Your task to perform on an android device: Open Youtube and go to the subscriptions tab Image 0: 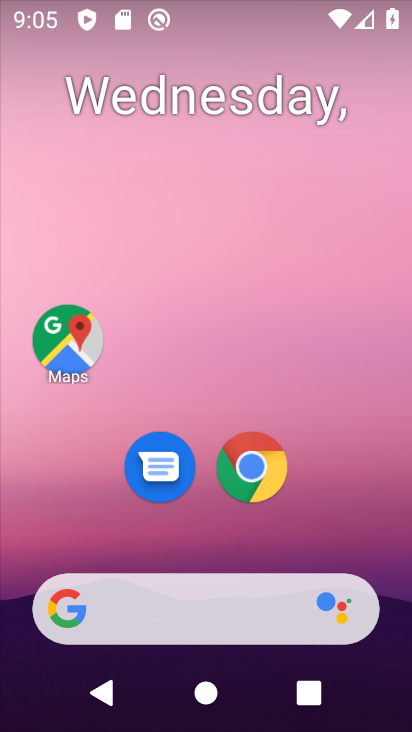
Step 0: drag from (369, 562) to (310, 11)
Your task to perform on an android device: Open Youtube and go to the subscriptions tab Image 1: 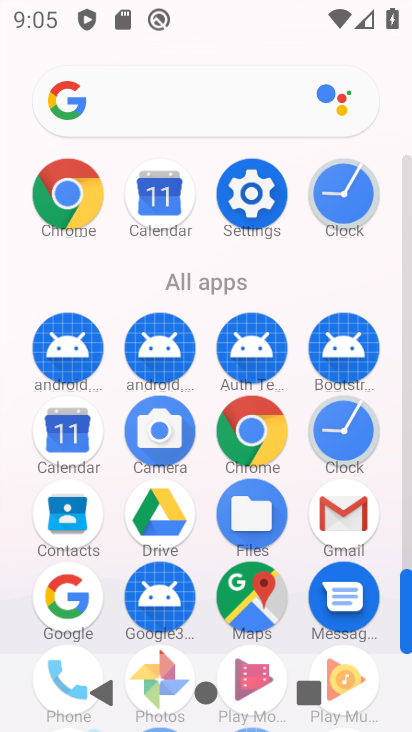
Step 1: drag from (332, 588) to (258, 181)
Your task to perform on an android device: Open Youtube and go to the subscriptions tab Image 2: 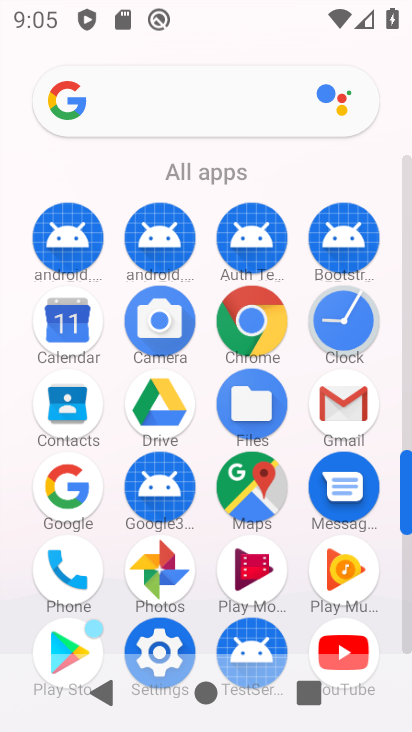
Step 2: drag from (325, 539) to (271, 225)
Your task to perform on an android device: Open Youtube and go to the subscriptions tab Image 3: 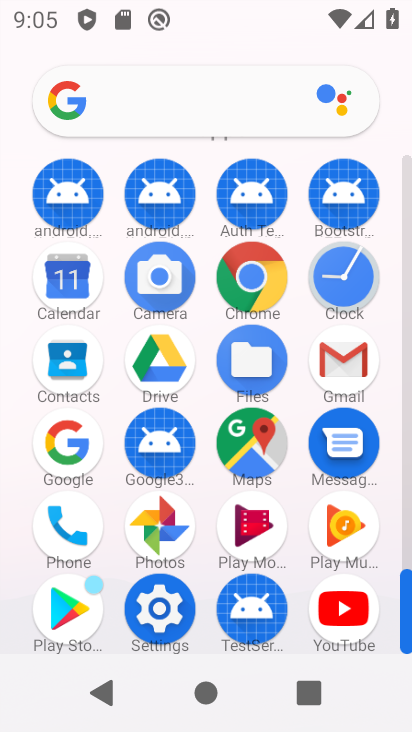
Step 3: drag from (278, 383) to (242, 204)
Your task to perform on an android device: Open Youtube and go to the subscriptions tab Image 4: 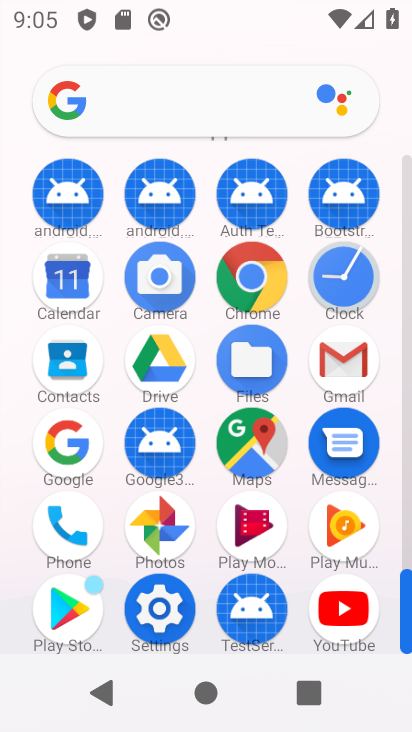
Step 4: click (342, 599)
Your task to perform on an android device: Open Youtube and go to the subscriptions tab Image 5: 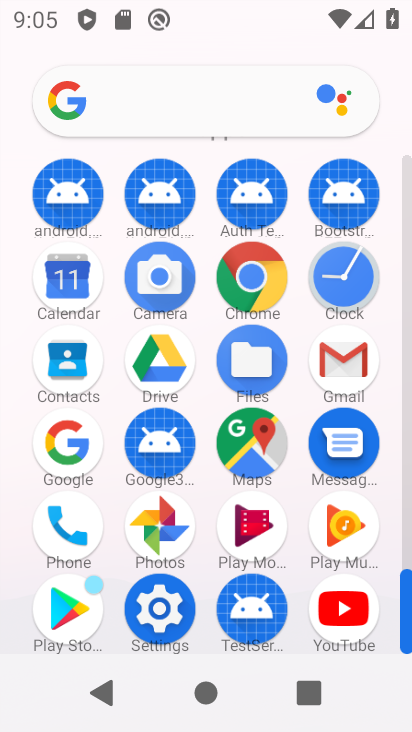
Step 5: click (342, 599)
Your task to perform on an android device: Open Youtube and go to the subscriptions tab Image 6: 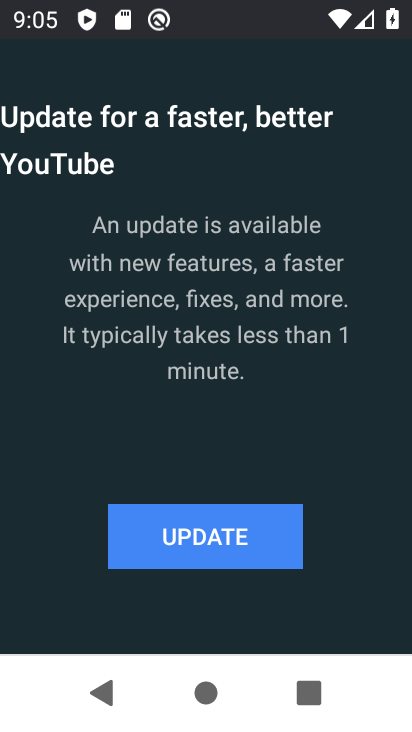
Step 6: click (238, 544)
Your task to perform on an android device: Open Youtube and go to the subscriptions tab Image 7: 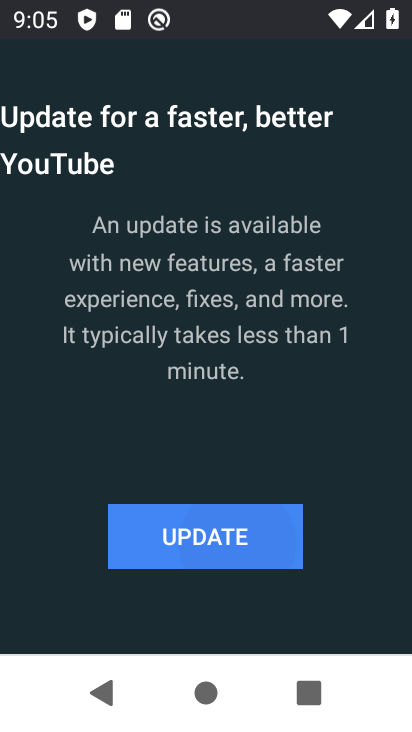
Step 7: drag from (237, 543) to (209, 513)
Your task to perform on an android device: Open Youtube and go to the subscriptions tab Image 8: 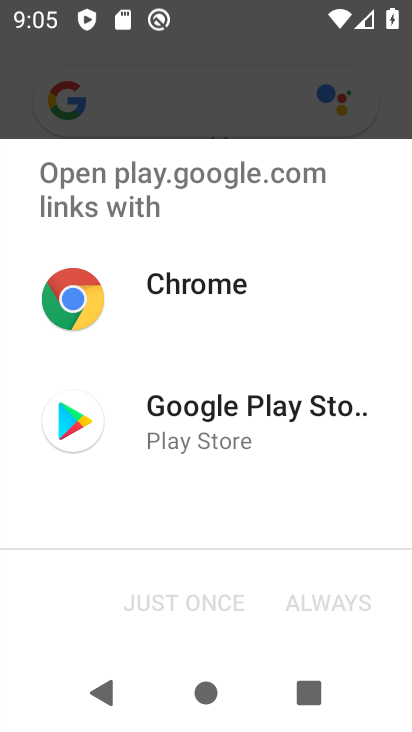
Step 8: click (206, 509)
Your task to perform on an android device: Open Youtube and go to the subscriptions tab Image 9: 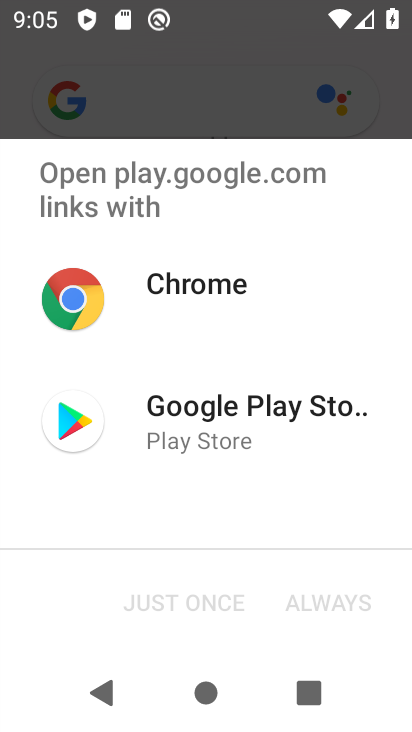
Step 9: click (207, 508)
Your task to perform on an android device: Open Youtube and go to the subscriptions tab Image 10: 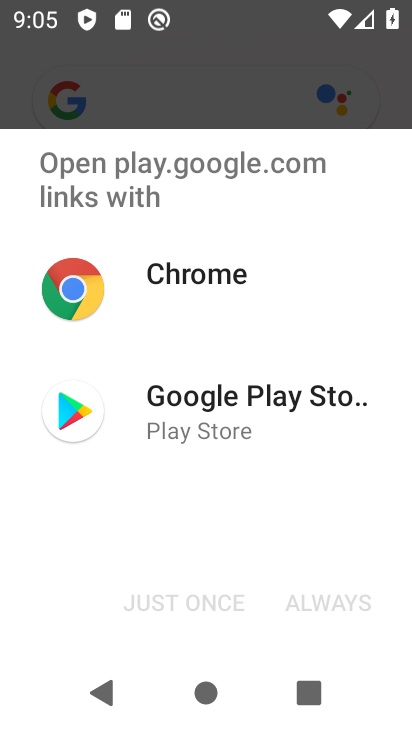
Step 10: click (221, 596)
Your task to perform on an android device: Open Youtube and go to the subscriptions tab Image 11: 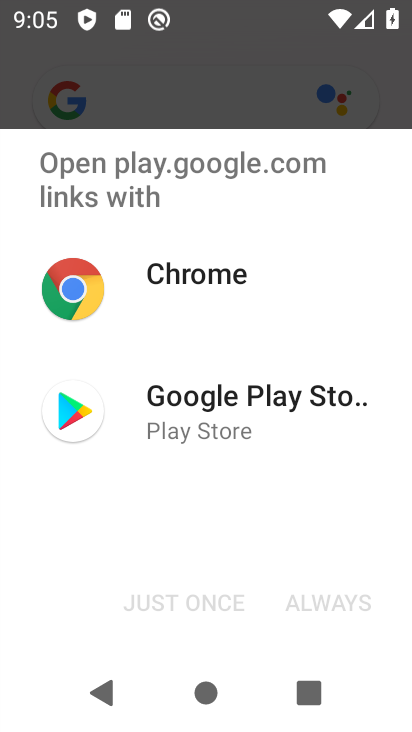
Step 11: click (205, 588)
Your task to perform on an android device: Open Youtube and go to the subscriptions tab Image 12: 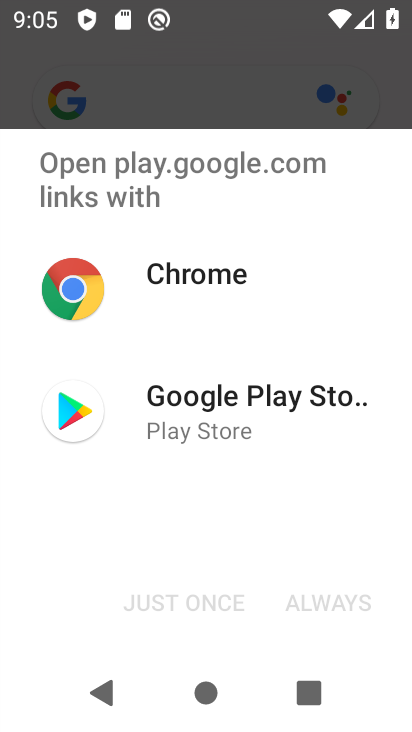
Step 12: click (223, 608)
Your task to perform on an android device: Open Youtube and go to the subscriptions tab Image 13: 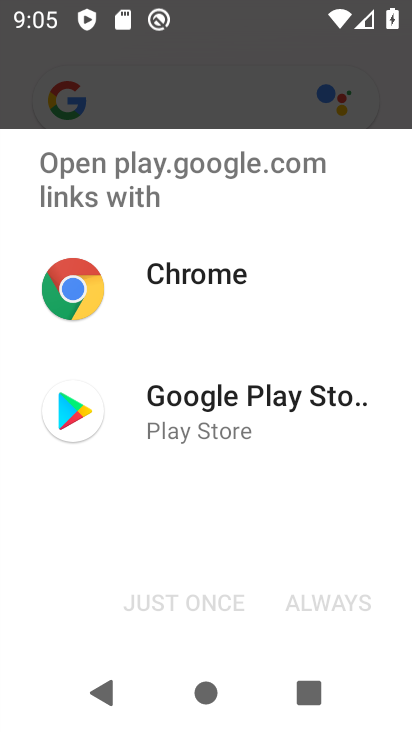
Step 13: click (220, 602)
Your task to perform on an android device: Open Youtube and go to the subscriptions tab Image 14: 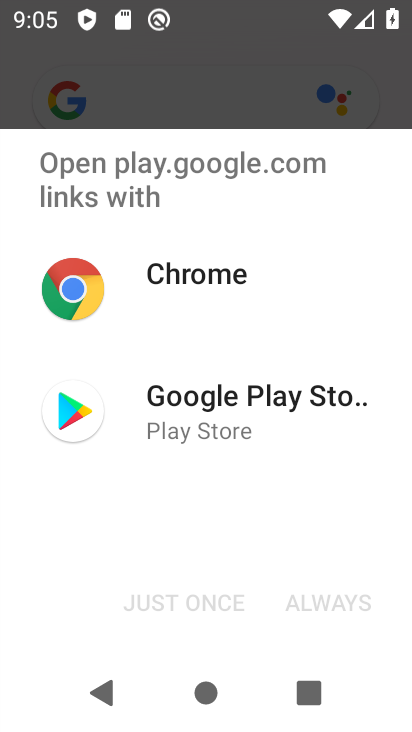
Step 14: click (221, 575)
Your task to perform on an android device: Open Youtube and go to the subscriptions tab Image 15: 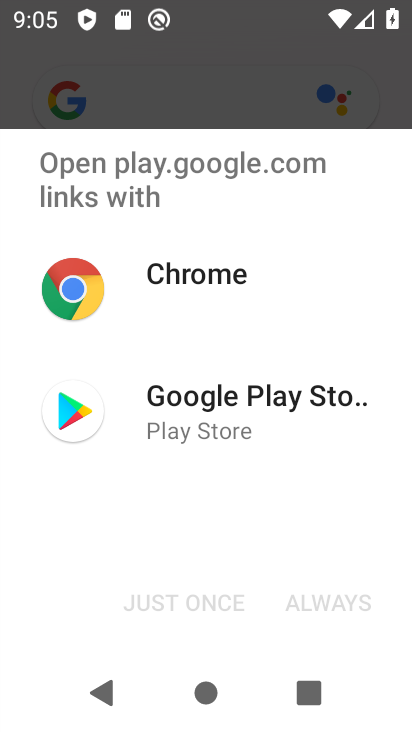
Step 15: click (217, 406)
Your task to perform on an android device: Open Youtube and go to the subscriptions tab Image 16: 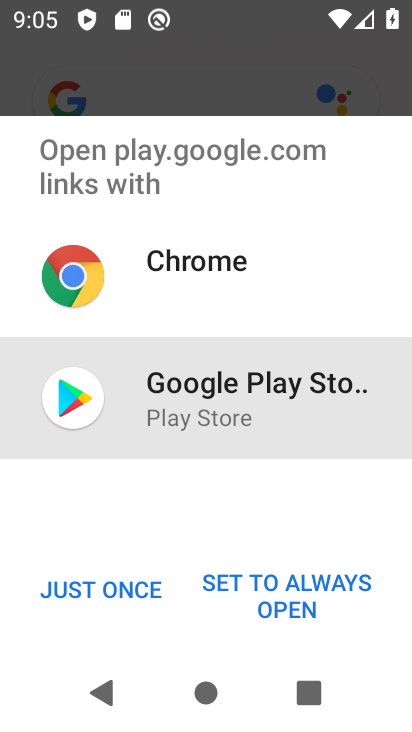
Step 16: click (217, 406)
Your task to perform on an android device: Open Youtube and go to the subscriptions tab Image 17: 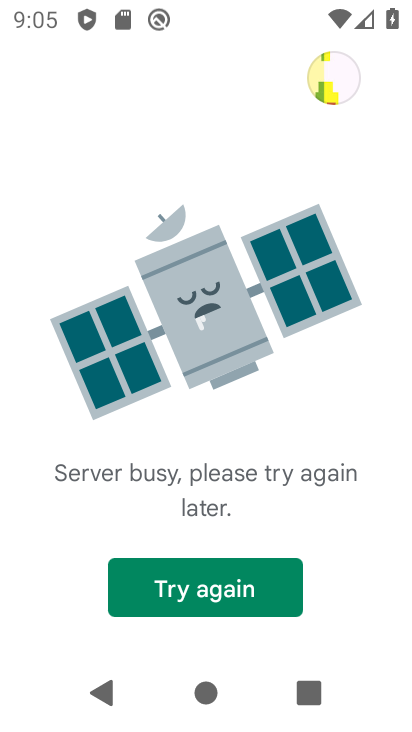
Step 17: click (231, 287)
Your task to perform on an android device: Open Youtube and go to the subscriptions tab Image 18: 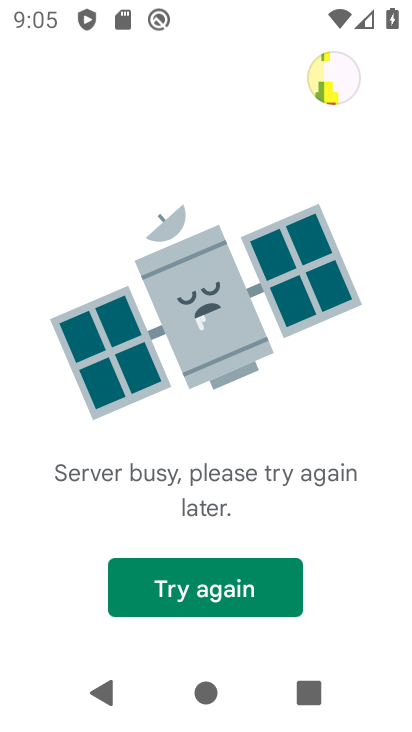
Step 18: task complete